Your task to perform on an android device: turn off javascript in the chrome app Image 0: 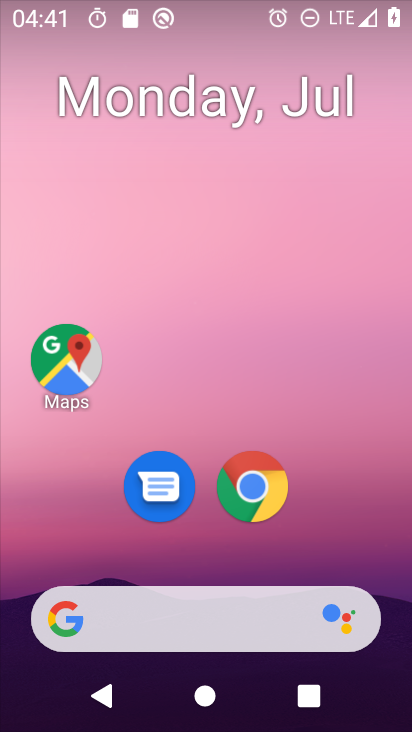
Step 0: click (235, 492)
Your task to perform on an android device: turn off javascript in the chrome app Image 1: 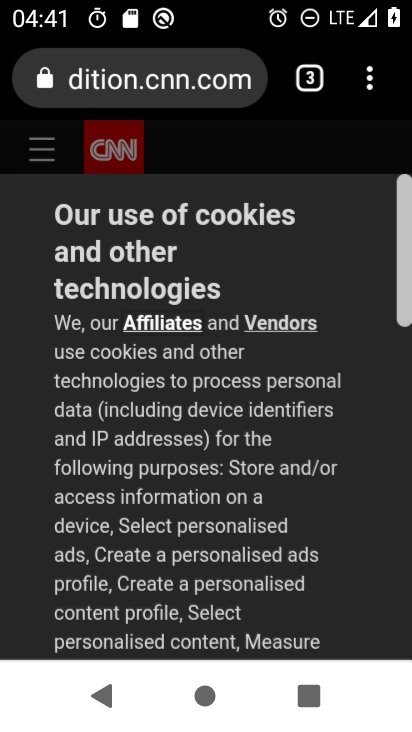
Step 1: drag from (367, 75) to (119, 552)
Your task to perform on an android device: turn off javascript in the chrome app Image 2: 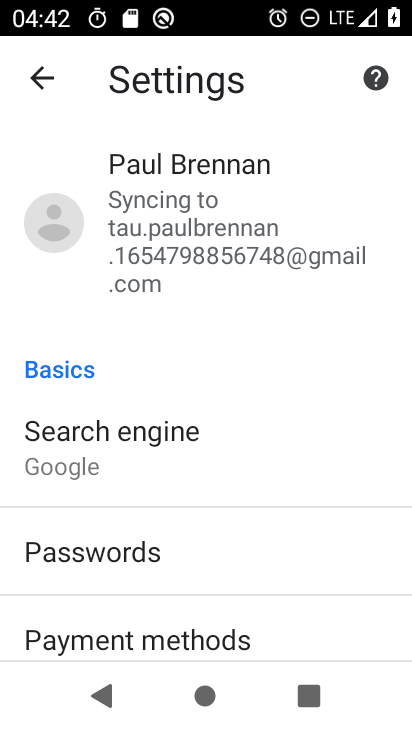
Step 2: drag from (103, 608) to (279, 41)
Your task to perform on an android device: turn off javascript in the chrome app Image 3: 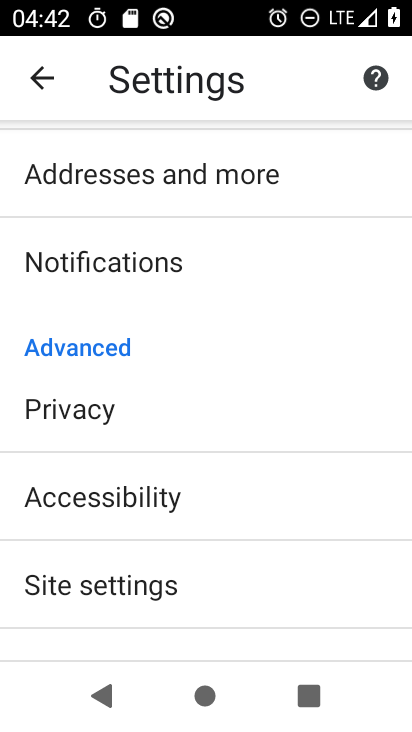
Step 3: click (135, 572)
Your task to perform on an android device: turn off javascript in the chrome app Image 4: 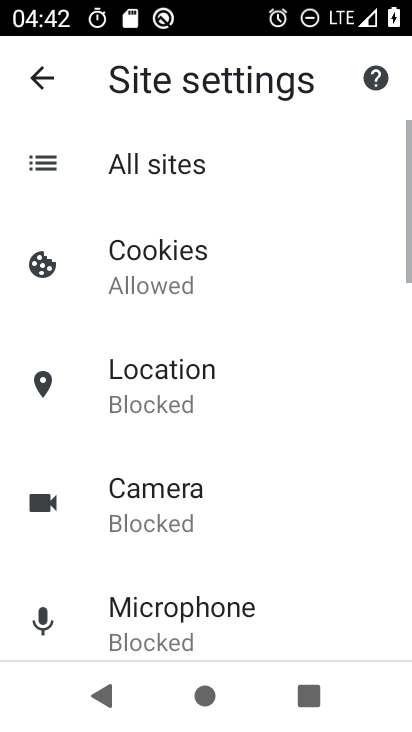
Step 4: drag from (112, 585) to (295, 69)
Your task to perform on an android device: turn off javascript in the chrome app Image 5: 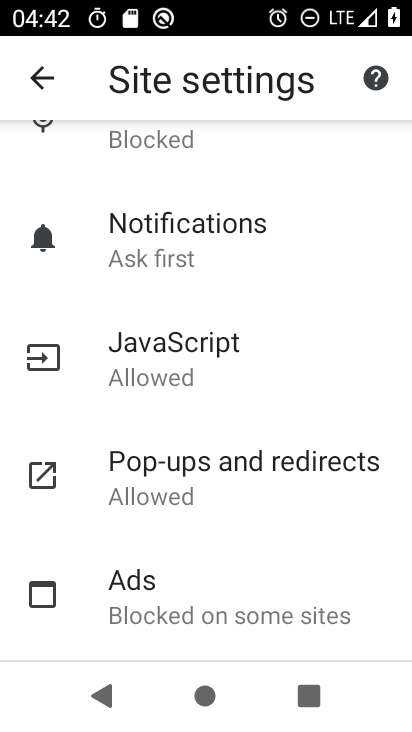
Step 5: click (138, 342)
Your task to perform on an android device: turn off javascript in the chrome app Image 6: 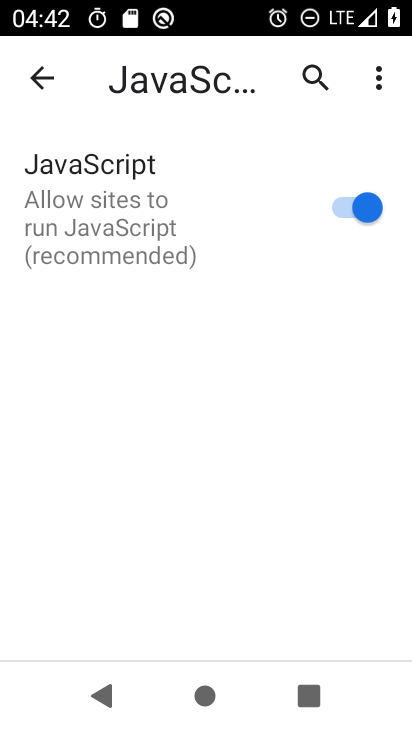
Step 6: click (356, 206)
Your task to perform on an android device: turn off javascript in the chrome app Image 7: 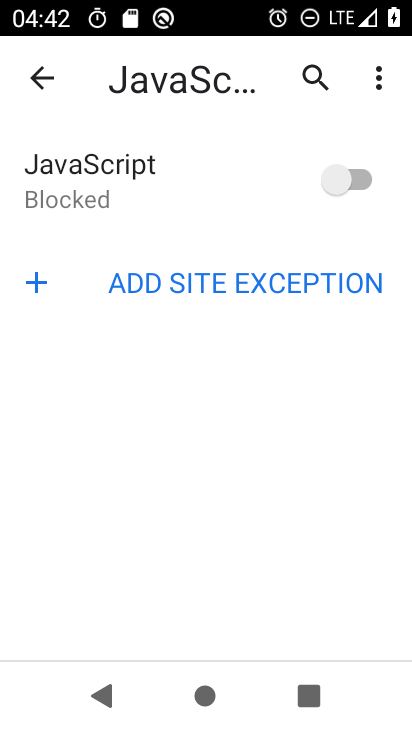
Step 7: task complete